Your task to perform on an android device: toggle data saver in the chrome app Image 0: 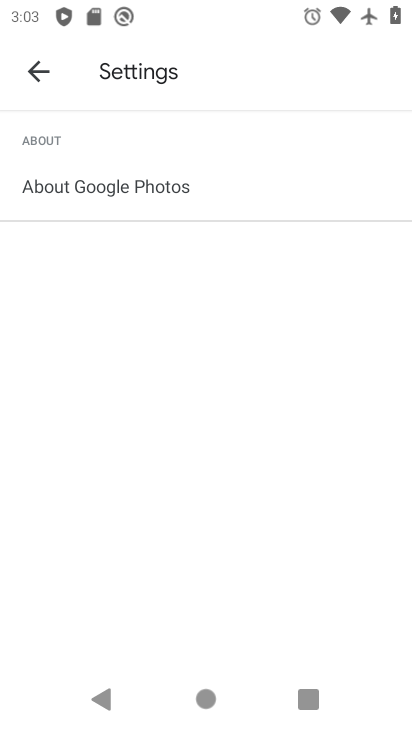
Step 0: press home button
Your task to perform on an android device: toggle data saver in the chrome app Image 1: 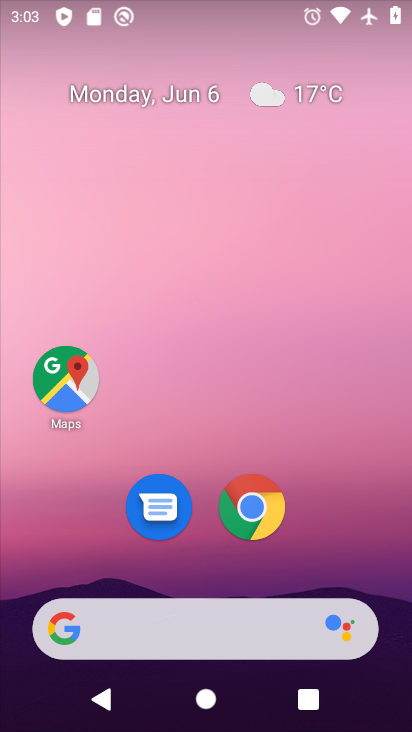
Step 1: click (255, 508)
Your task to perform on an android device: toggle data saver in the chrome app Image 2: 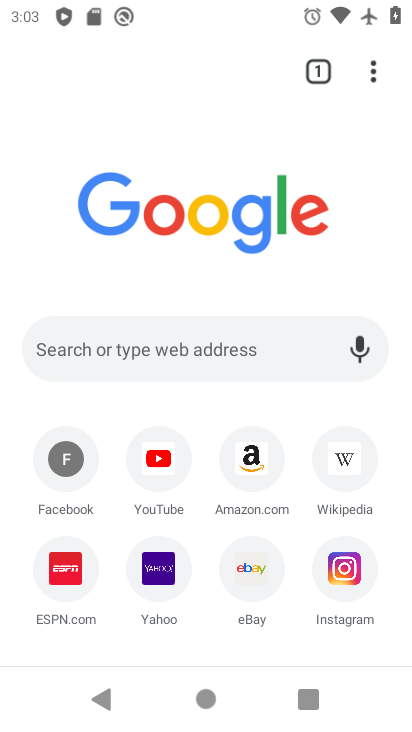
Step 2: click (372, 74)
Your task to perform on an android device: toggle data saver in the chrome app Image 3: 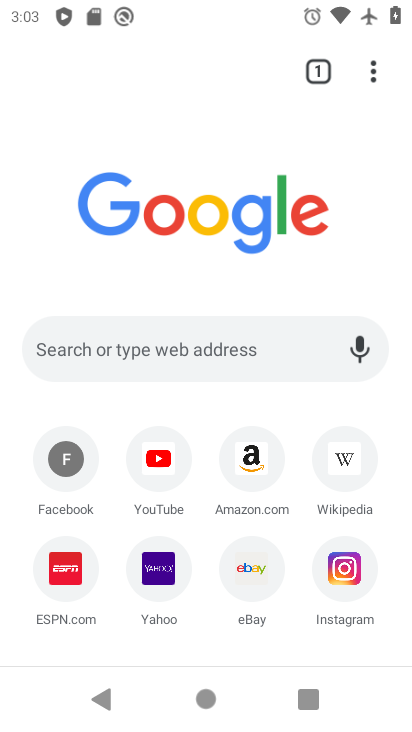
Step 3: drag from (373, 74) to (150, 500)
Your task to perform on an android device: toggle data saver in the chrome app Image 4: 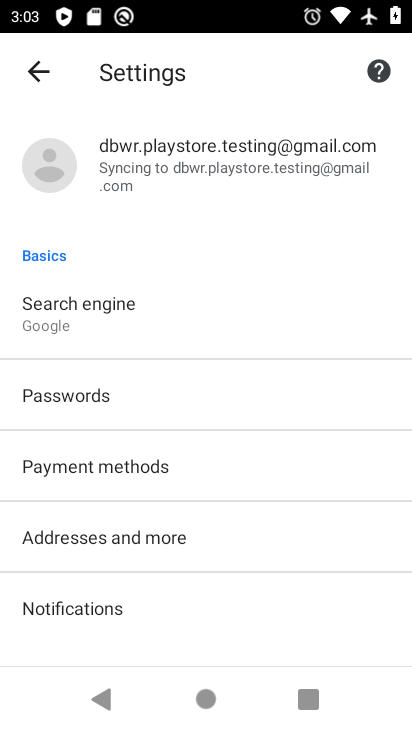
Step 4: drag from (282, 595) to (355, 28)
Your task to perform on an android device: toggle data saver in the chrome app Image 5: 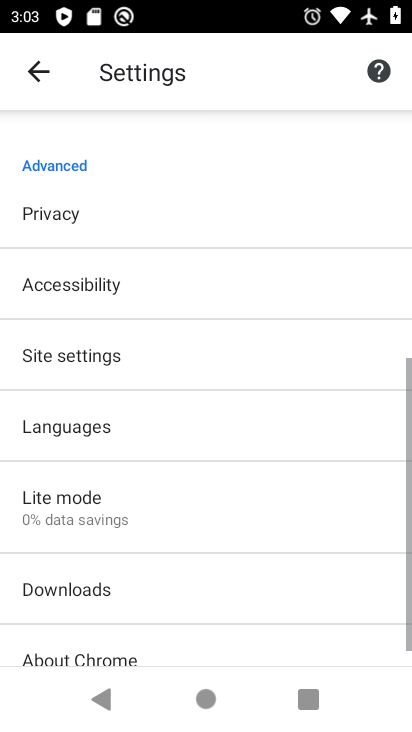
Step 5: click (169, 485)
Your task to perform on an android device: toggle data saver in the chrome app Image 6: 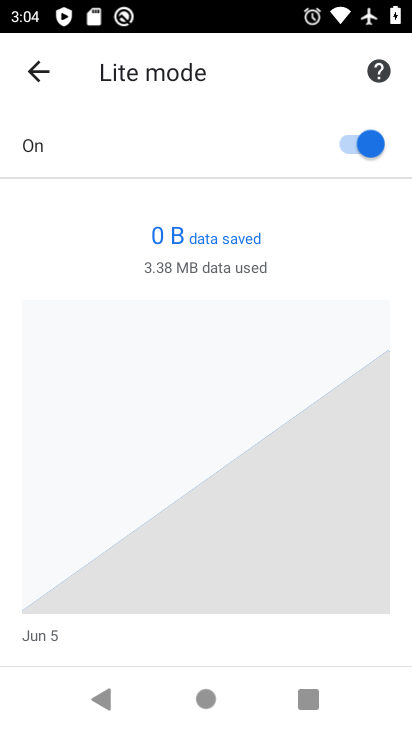
Step 6: click (367, 138)
Your task to perform on an android device: toggle data saver in the chrome app Image 7: 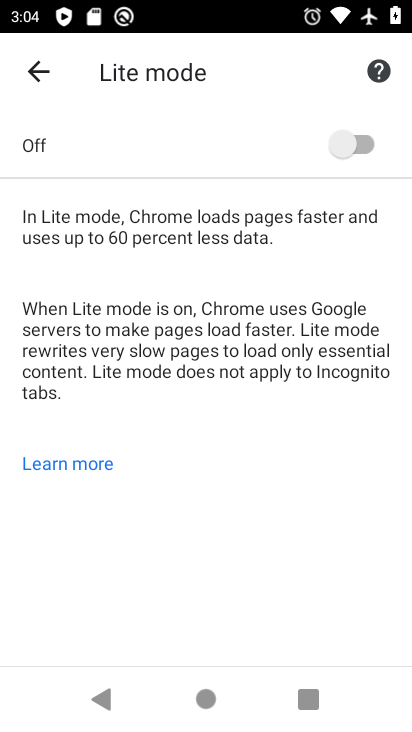
Step 7: task complete